Your task to perform on an android device: What's on my calendar tomorrow? Image 0: 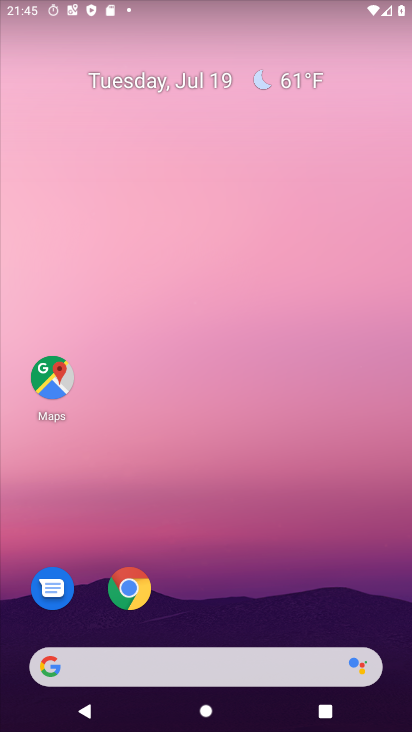
Step 0: drag from (203, 630) to (189, 61)
Your task to perform on an android device: What's on my calendar tomorrow? Image 1: 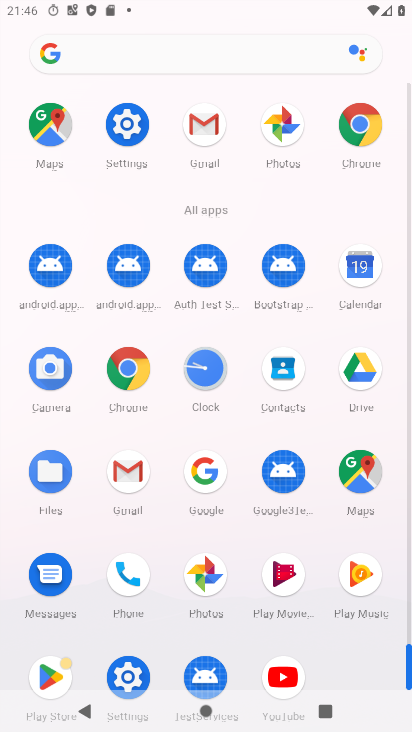
Step 1: click (360, 267)
Your task to perform on an android device: What's on my calendar tomorrow? Image 2: 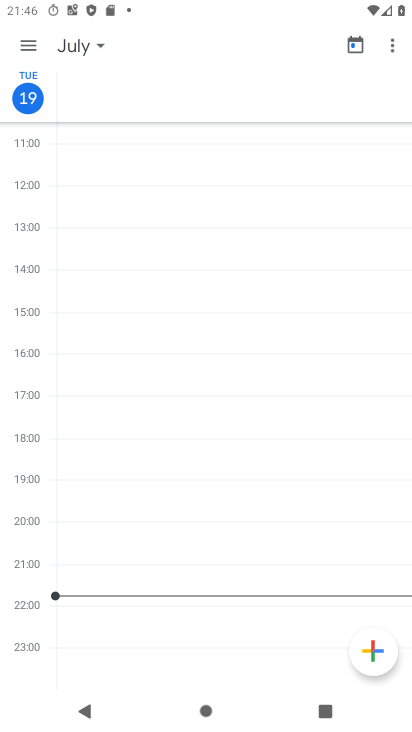
Step 2: click (35, 101)
Your task to perform on an android device: What's on my calendar tomorrow? Image 3: 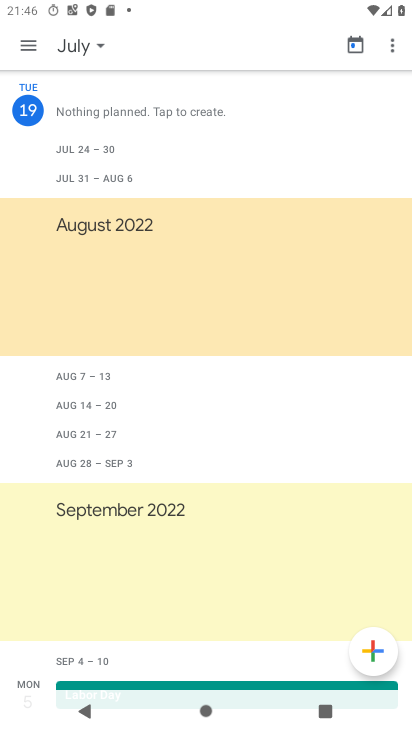
Step 3: click (95, 44)
Your task to perform on an android device: What's on my calendar tomorrow? Image 4: 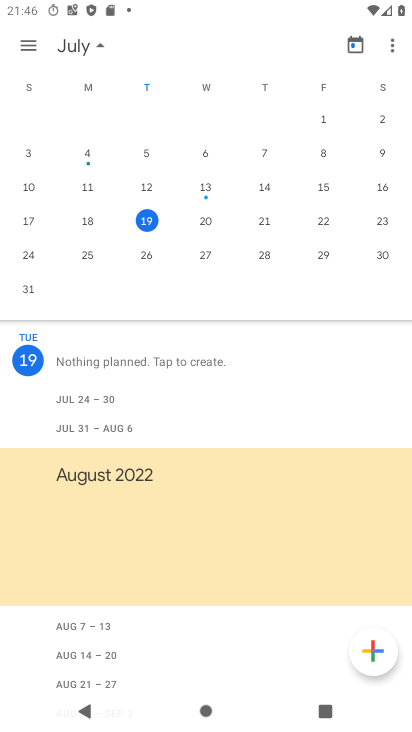
Step 4: click (204, 219)
Your task to perform on an android device: What's on my calendar tomorrow? Image 5: 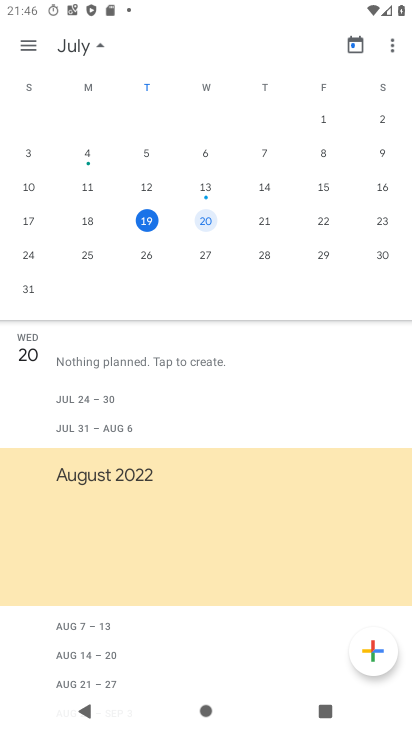
Step 5: click (36, 344)
Your task to perform on an android device: What's on my calendar tomorrow? Image 6: 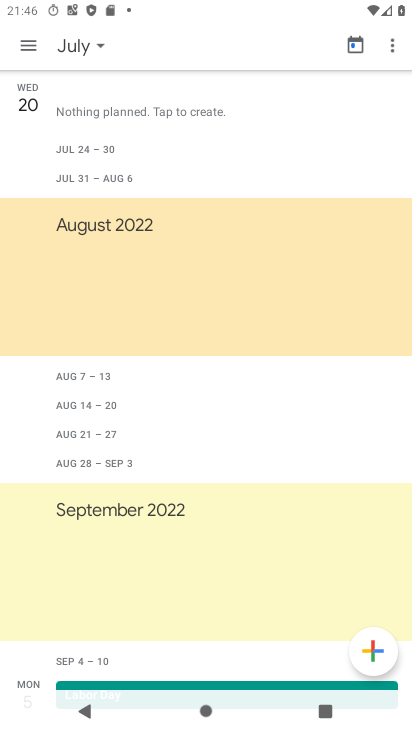
Step 6: click (43, 96)
Your task to perform on an android device: What's on my calendar tomorrow? Image 7: 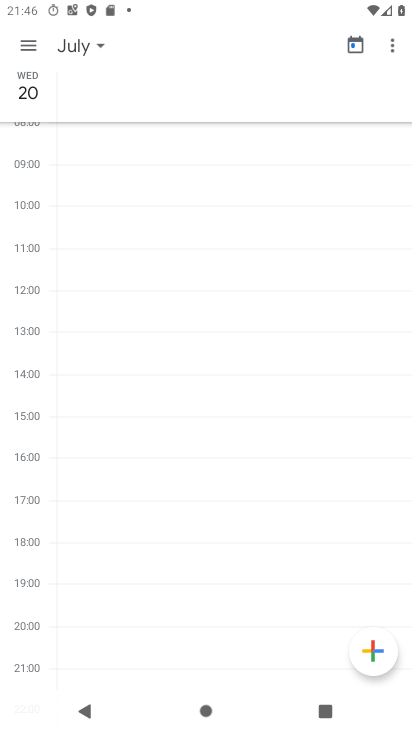
Step 7: task complete